Your task to perform on an android device: toggle wifi Image 0: 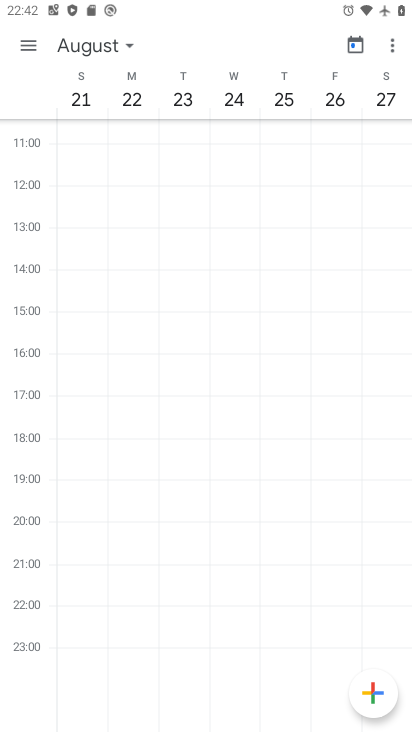
Step 0: press home button
Your task to perform on an android device: toggle wifi Image 1: 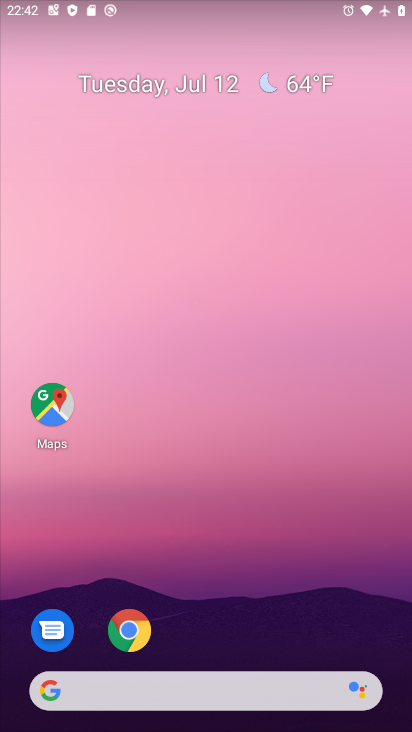
Step 1: drag from (185, 653) to (352, 12)
Your task to perform on an android device: toggle wifi Image 2: 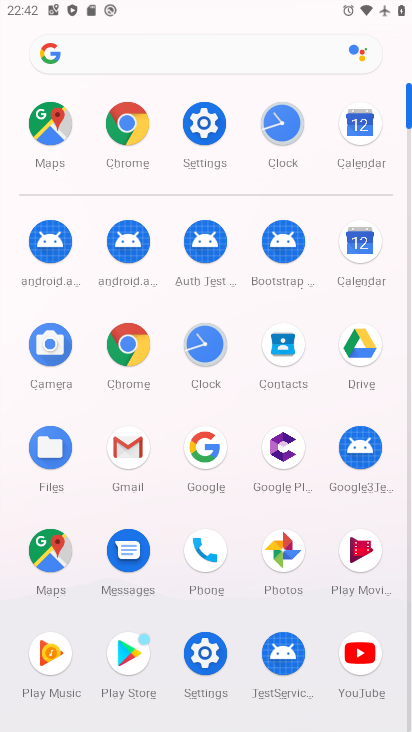
Step 2: click (202, 662)
Your task to perform on an android device: toggle wifi Image 3: 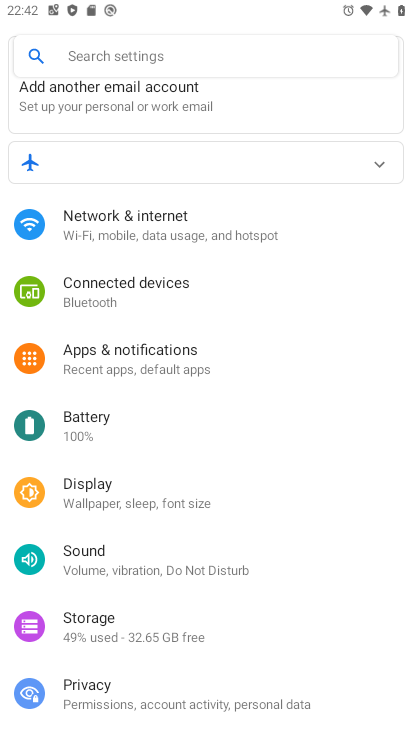
Step 3: click (117, 234)
Your task to perform on an android device: toggle wifi Image 4: 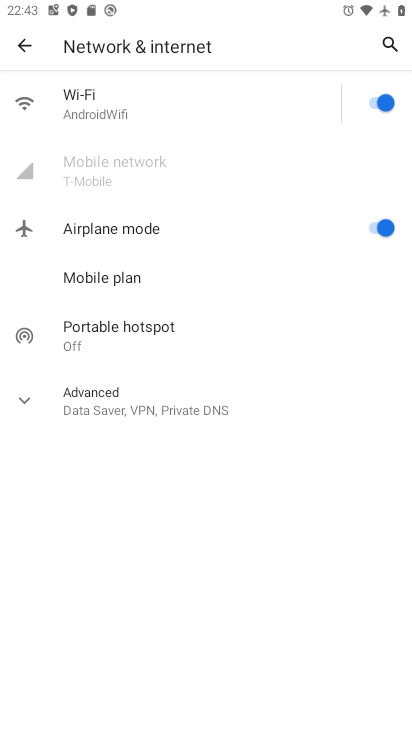
Step 4: click (113, 113)
Your task to perform on an android device: toggle wifi Image 5: 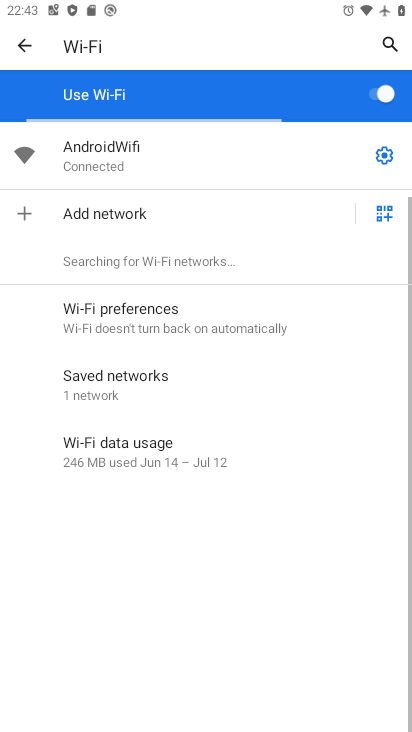
Step 5: click (384, 91)
Your task to perform on an android device: toggle wifi Image 6: 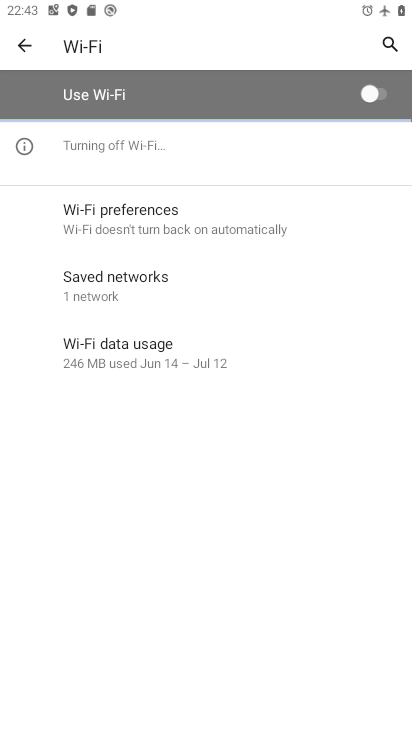
Step 6: task complete